Your task to perform on an android device: Go to Yahoo.com Image 0: 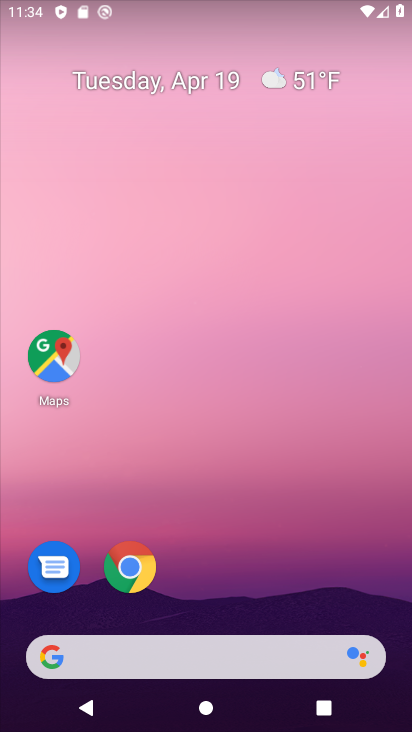
Step 0: click (118, 561)
Your task to perform on an android device: Go to Yahoo.com Image 1: 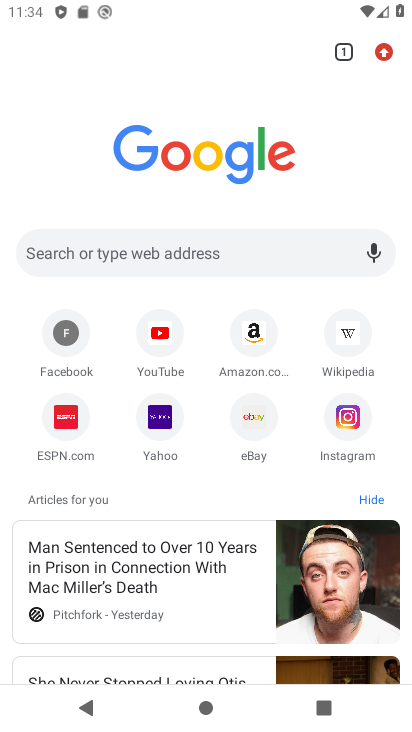
Step 1: click (167, 420)
Your task to perform on an android device: Go to Yahoo.com Image 2: 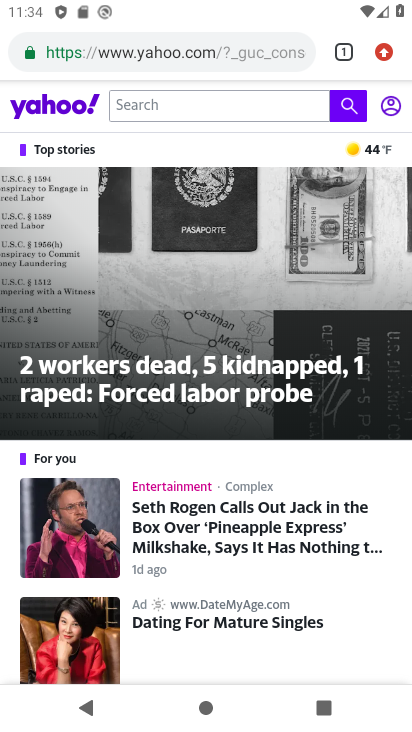
Step 2: task complete